Your task to perform on an android device: Go to internet settings Image 0: 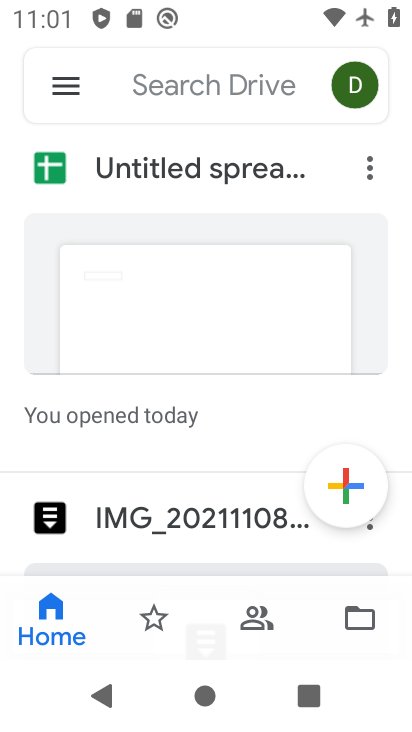
Step 0: press home button
Your task to perform on an android device: Go to internet settings Image 1: 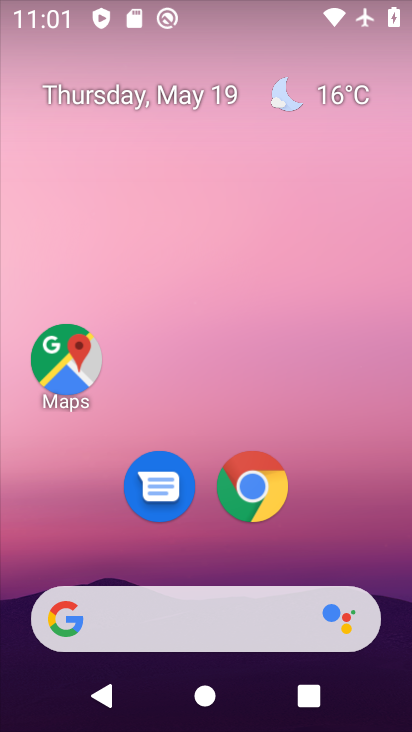
Step 1: drag from (358, 521) to (290, 16)
Your task to perform on an android device: Go to internet settings Image 2: 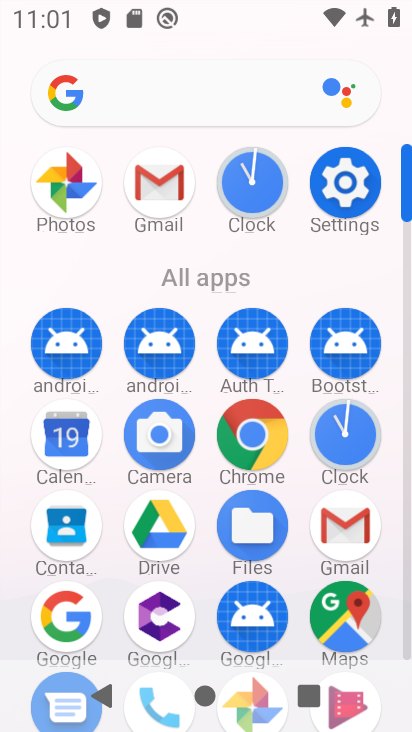
Step 2: click (326, 153)
Your task to perform on an android device: Go to internet settings Image 3: 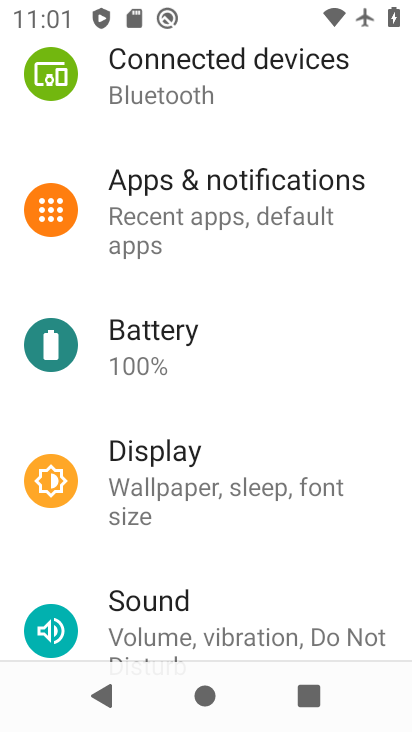
Step 3: drag from (235, 130) to (260, 388)
Your task to perform on an android device: Go to internet settings Image 4: 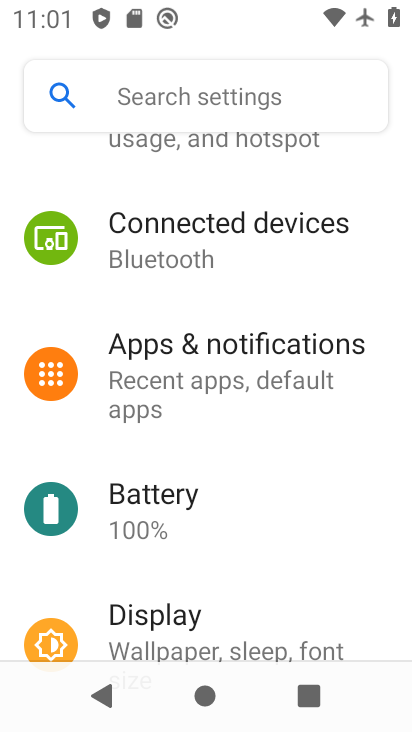
Step 4: click (287, 165)
Your task to perform on an android device: Go to internet settings Image 5: 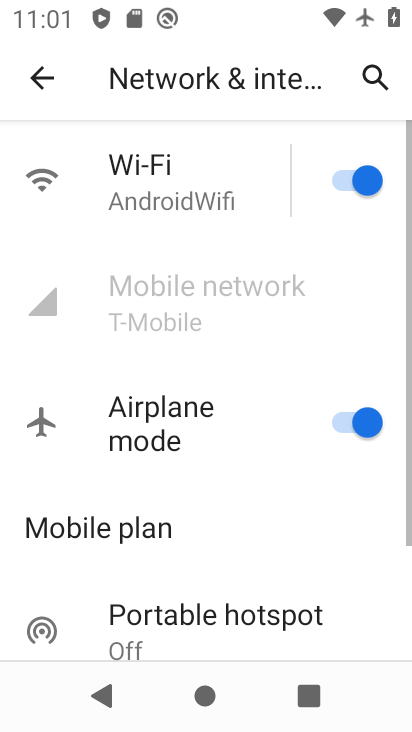
Step 5: task complete